Your task to perform on an android device: turn off picture-in-picture Image 0: 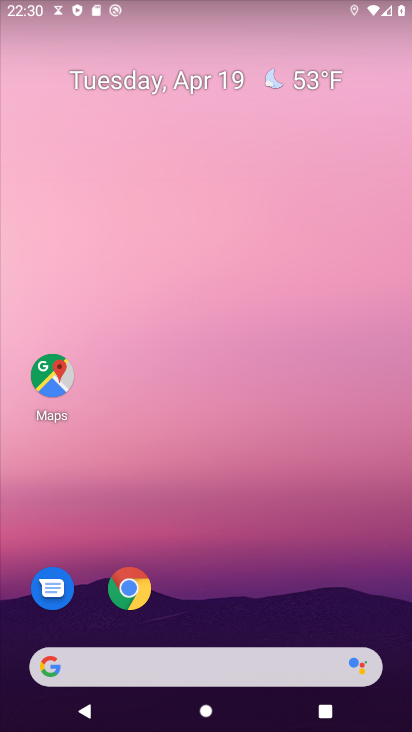
Step 0: click (131, 583)
Your task to perform on an android device: turn off picture-in-picture Image 1: 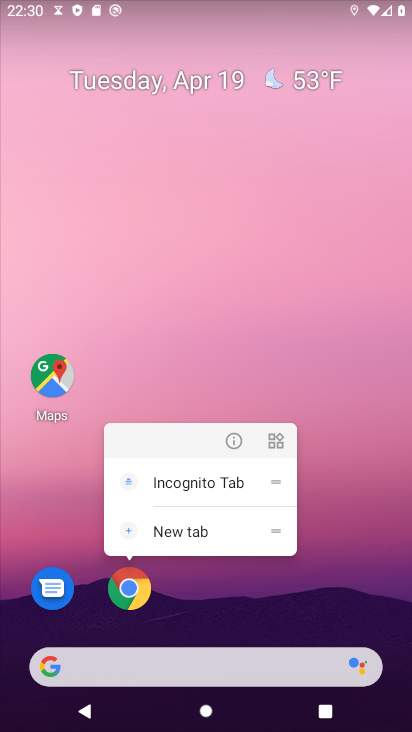
Step 1: click (231, 441)
Your task to perform on an android device: turn off picture-in-picture Image 2: 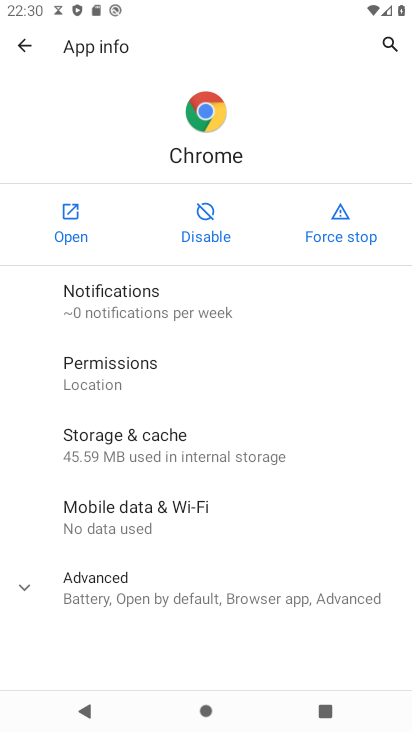
Step 2: click (198, 592)
Your task to perform on an android device: turn off picture-in-picture Image 3: 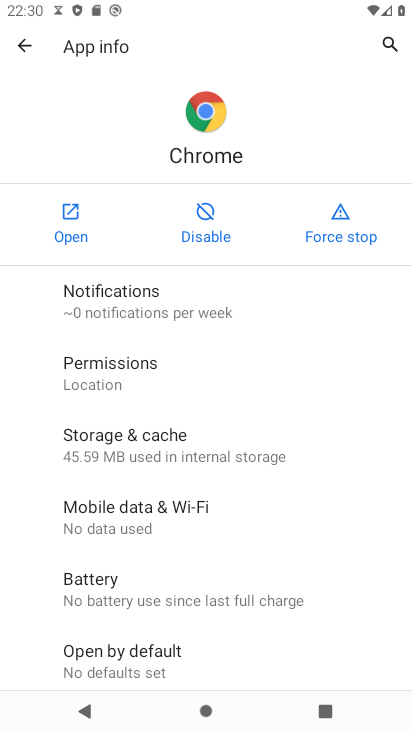
Step 3: drag from (210, 647) to (250, 486)
Your task to perform on an android device: turn off picture-in-picture Image 4: 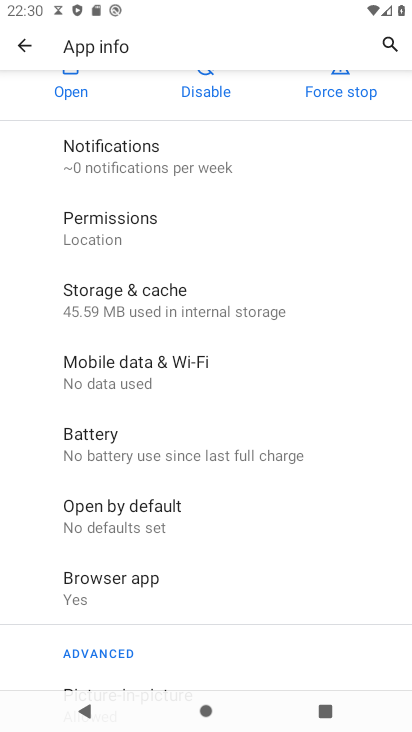
Step 4: drag from (195, 657) to (230, 512)
Your task to perform on an android device: turn off picture-in-picture Image 5: 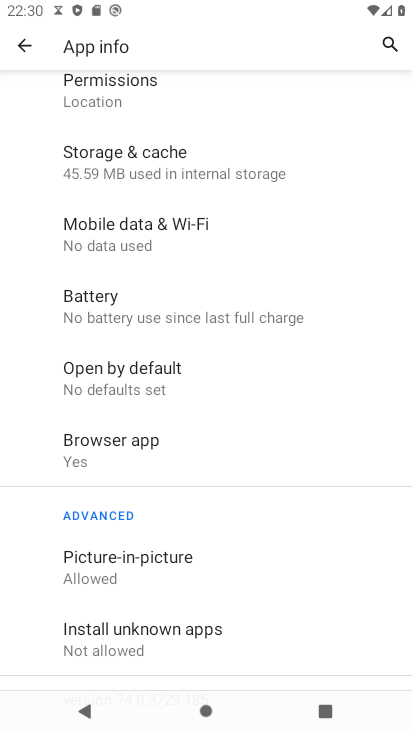
Step 5: click (175, 567)
Your task to perform on an android device: turn off picture-in-picture Image 6: 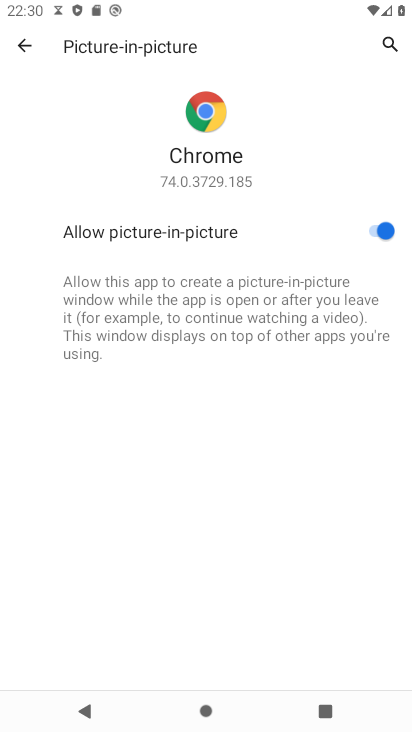
Step 6: click (386, 236)
Your task to perform on an android device: turn off picture-in-picture Image 7: 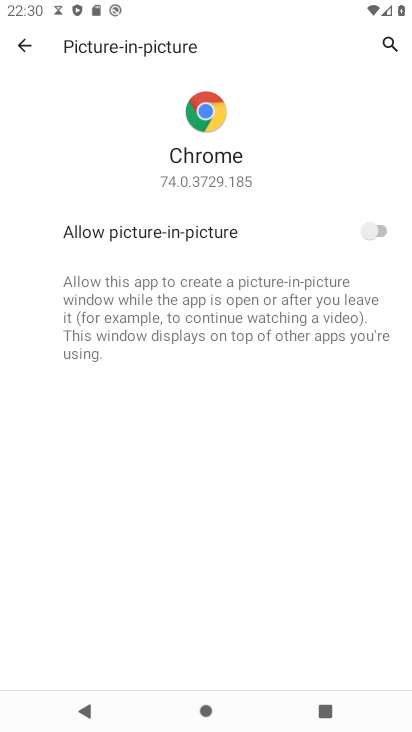
Step 7: task complete